Your task to perform on an android device: refresh tabs in the chrome app Image 0: 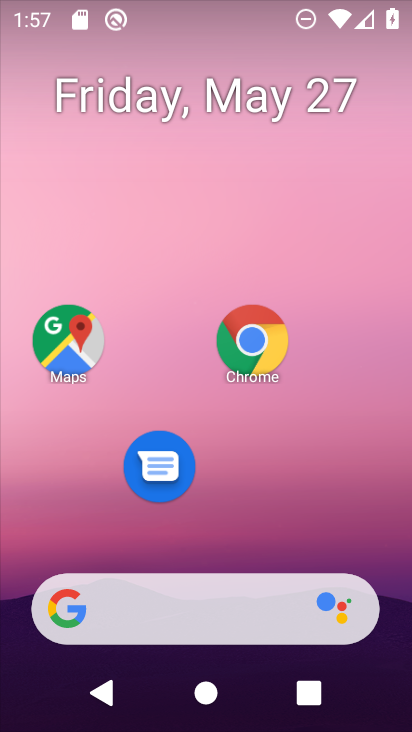
Step 0: click (259, 313)
Your task to perform on an android device: refresh tabs in the chrome app Image 1: 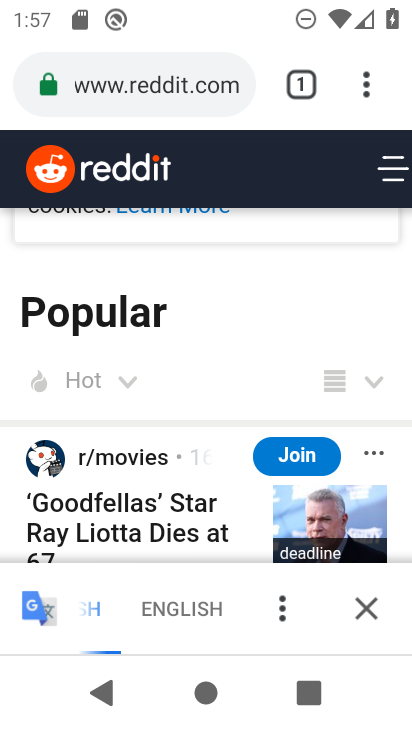
Step 1: click (388, 82)
Your task to perform on an android device: refresh tabs in the chrome app Image 2: 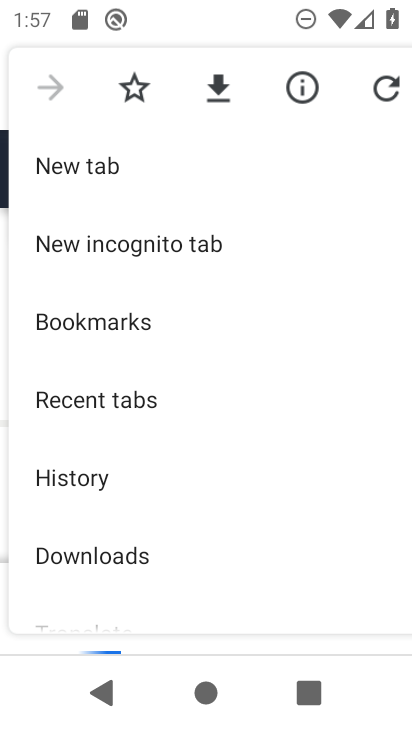
Step 2: click (388, 82)
Your task to perform on an android device: refresh tabs in the chrome app Image 3: 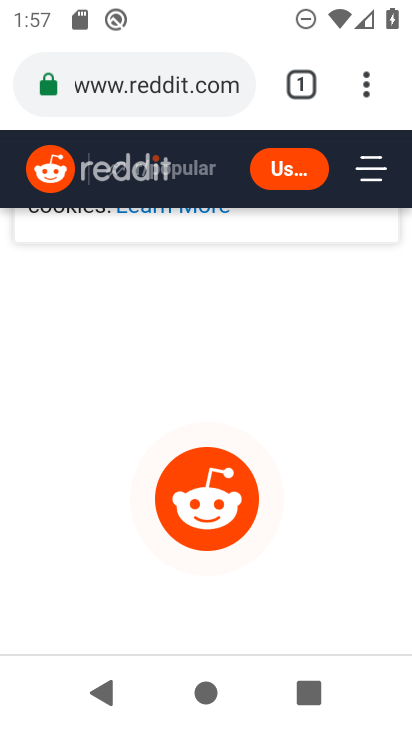
Step 3: task complete